Your task to perform on an android device: Go to accessibility settings Image 0: 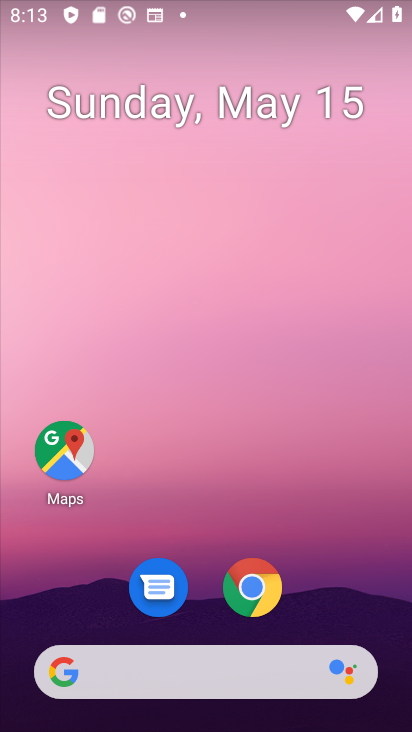
Step 0: drag from (215, 595) to (221, 113)
Your task to perform on an android device: Go to accessibility settings Image 1: 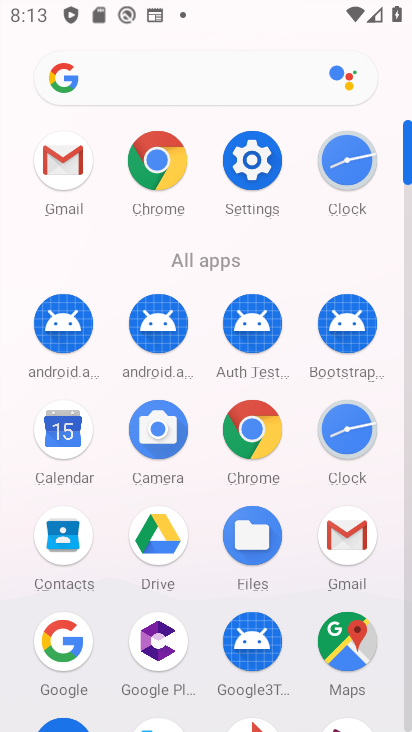
Step 1: click (255, 159)
Your task to perform on an android device: Go to accessibility settings Image 2: 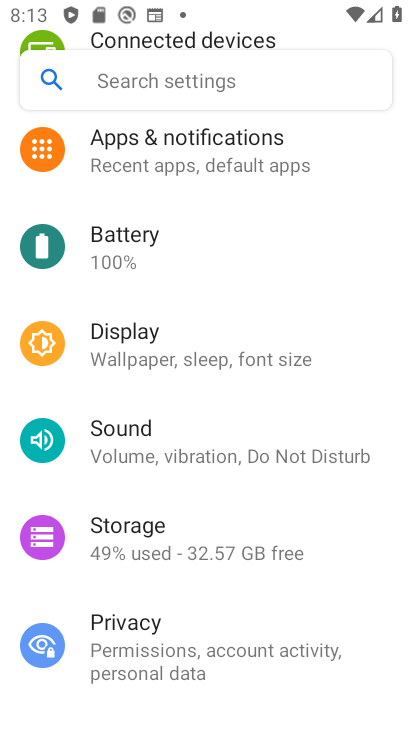
Step 2: drag from (208, 593) to (255, 162)
Your task to perform on an android device: Go to accessibility settings Image 3: 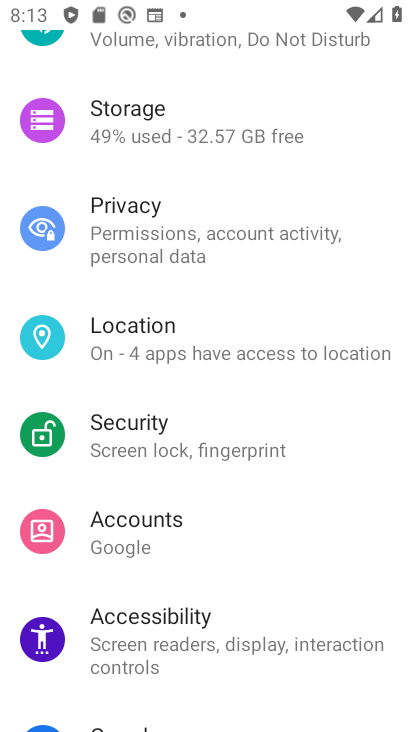
Step 3: click (149, 633)
Your task to perform on an android device: Go to accessibility settings Image 4: 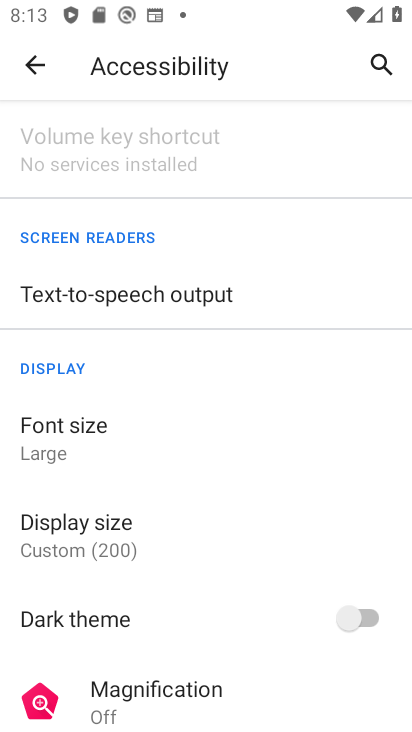
Step 4: task complete